Your task to perform on an android device: Go to Amazon Image 0: 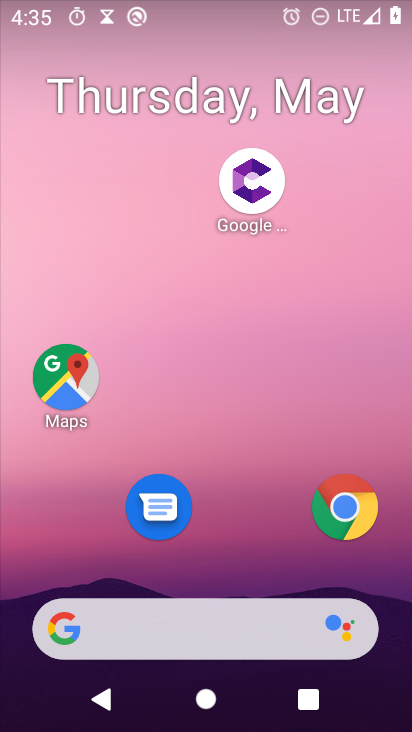
Step 0: click (188, 634)
Your task to perform on an android device: Go to Amazon Image 1: 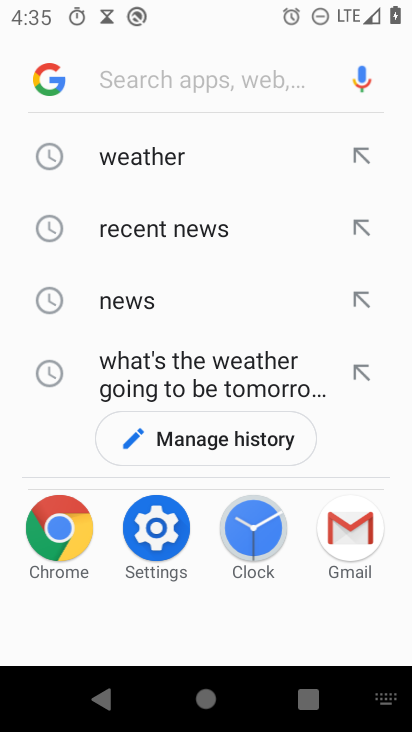
Step 1: type "Amazon"
Your task to perform on an android device: Go to Amazon Image 2: 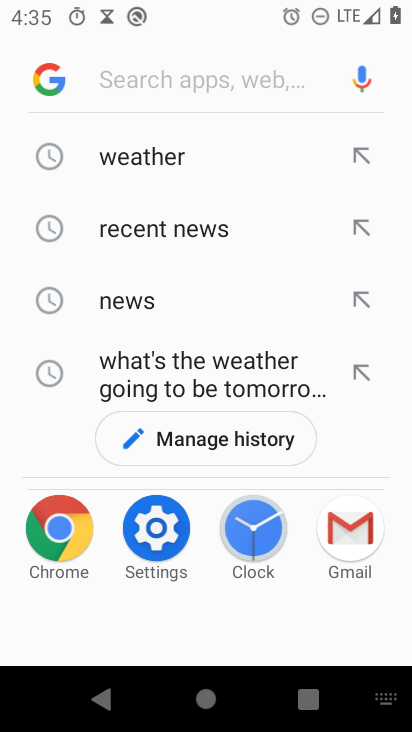
Step 2: click (132, 82)
Your task to perform on an android device: Go to Amazon Image 3: 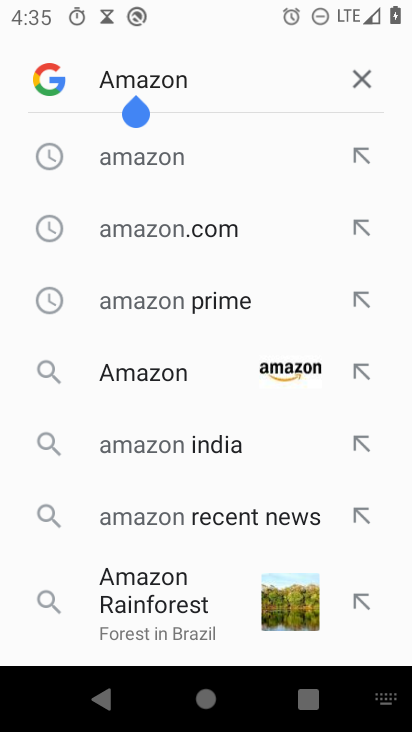
Step 3: click (195, 373)
Your task to perform on an android device: Go to Amazon Image 4: 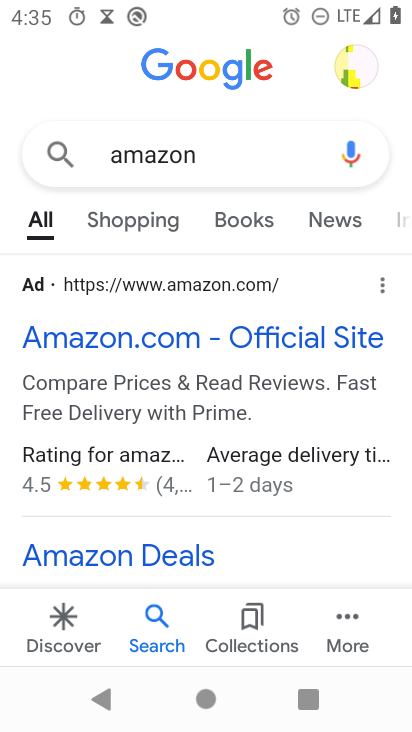
Step 4: drag from (298, 518) to (303, 87)
Your task to perform on an android device: Go to Amazon Image 5: 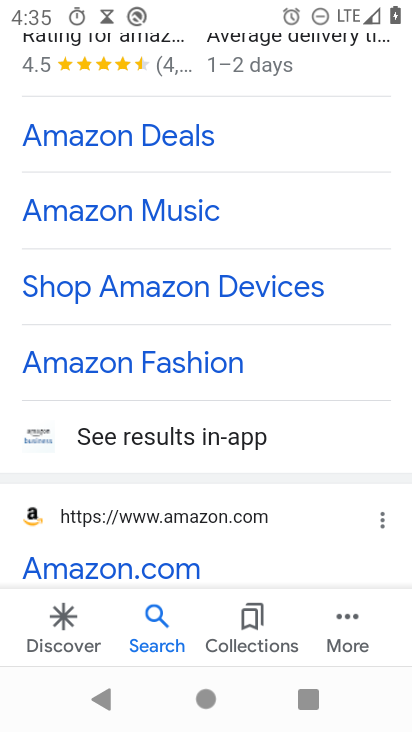
Step 5: drag from (282, 531) to (284, 241)
Your task to perform on an android device: Go to Amazon Image 6: 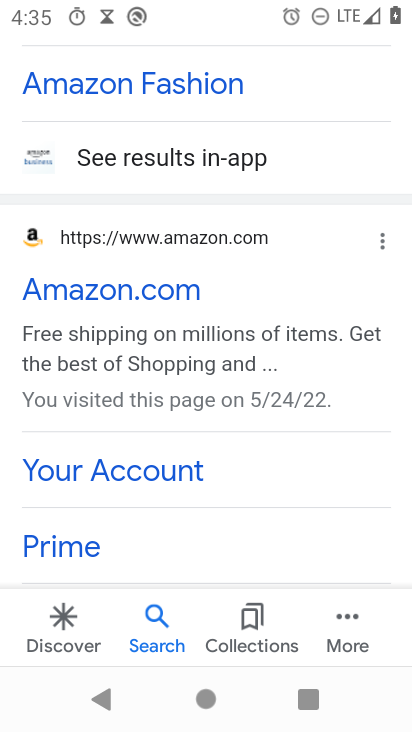
Step 6: click (104, 294)
Your task to perform on an android device: Go to Amazon Image 7: 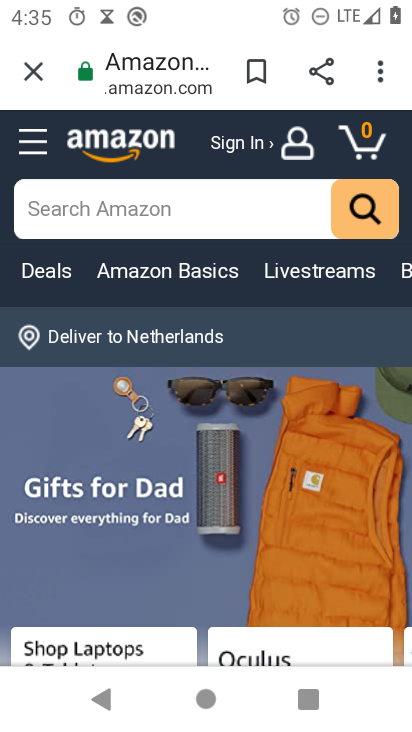
Step 7: task complete